Your task to perform on an android device: What is the news today? Image 0: 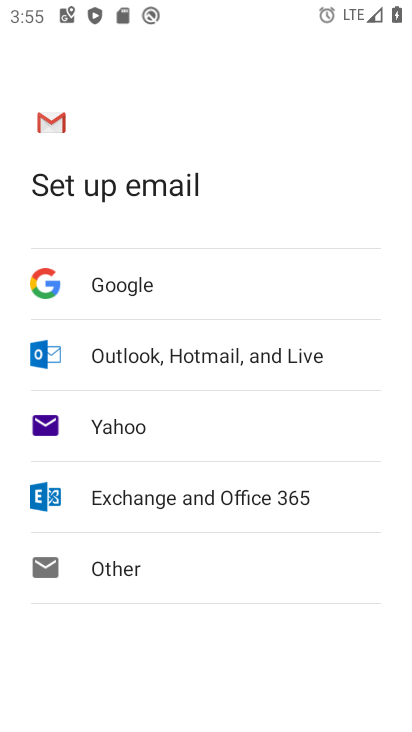
Step 0: press home button
Your task to perform on an android device: What is the news today? Image 1: 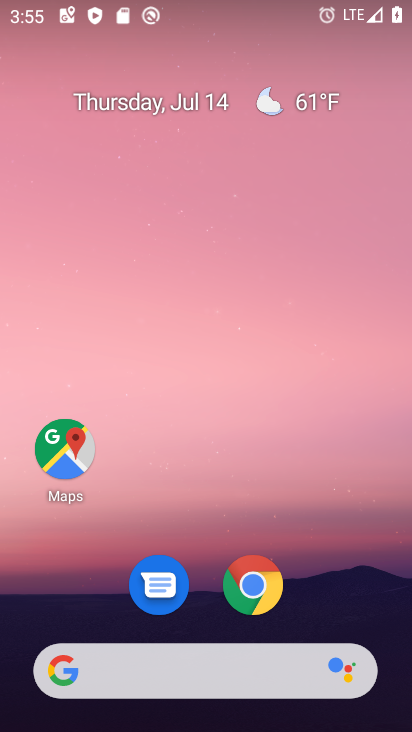
Step 1: click (243, 671)
Your task to perform on an android device: What is the news today? Image 2: 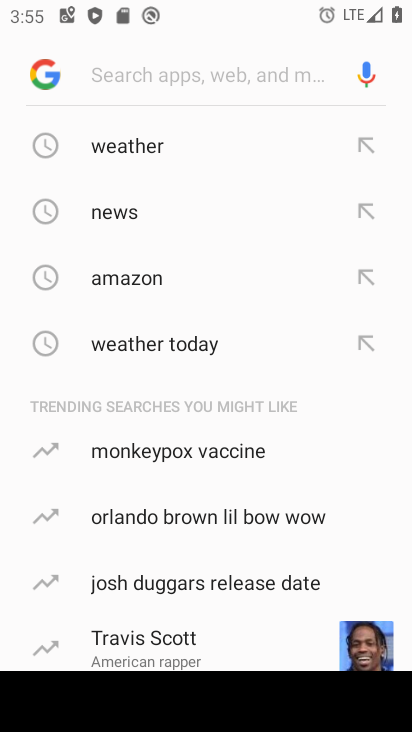
Step 2: click (109, 212)
Your task to perform on an android device: What is the news today? Image 3: 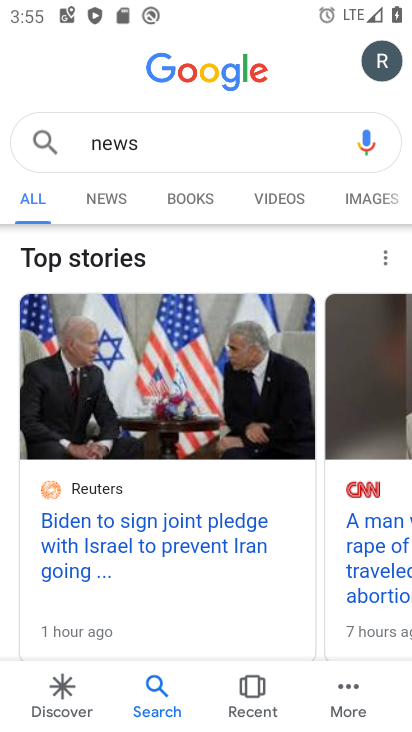
Step 3: click (115, 191)
Your task to perform on an android device: What is the news today? Image 4: 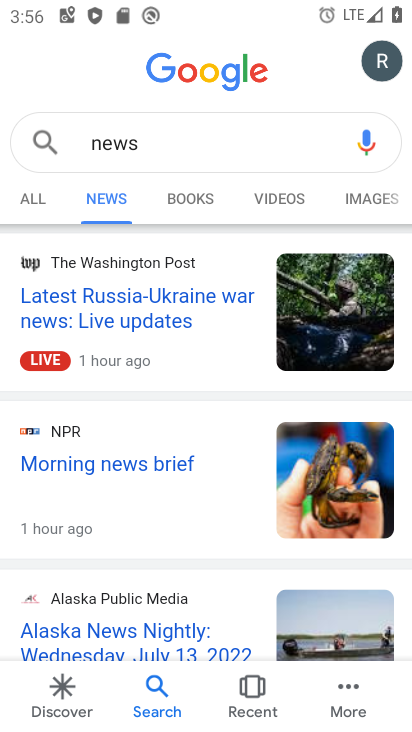
Step 4: task complete